Your task to perform on an android device: install app "Google Drive" Image 0: 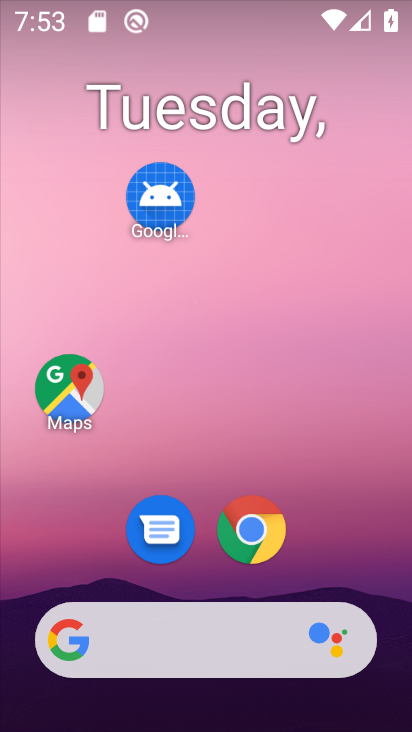
Step 0: press home button
Your task to perform on an android device: install app "Google Drive" Image 1: 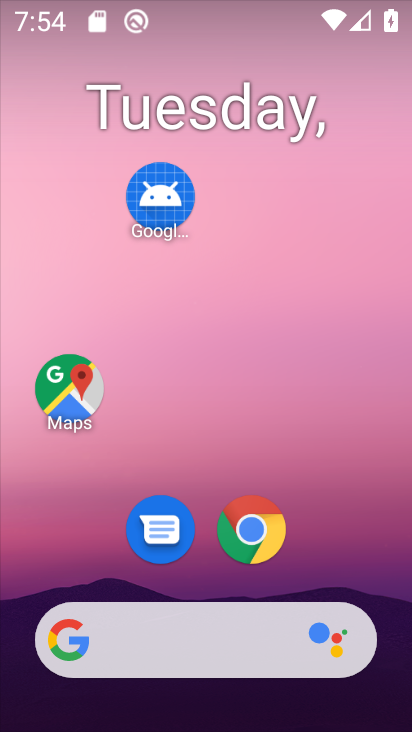
Step 1: drag from (319, 560) to (381, 46)
Your task to perform on an android device: install app "Google Drive" Image 2: 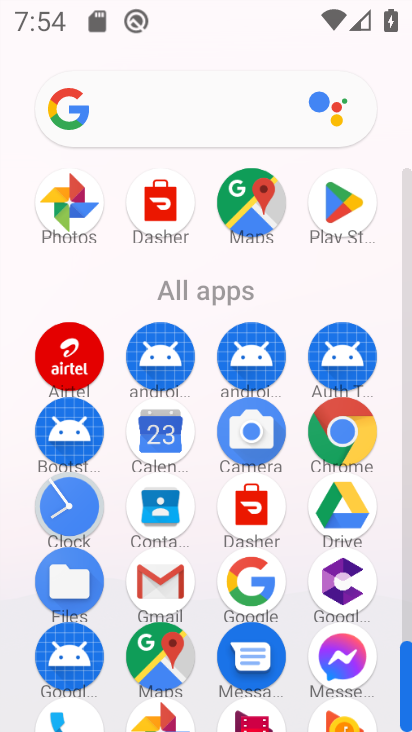
Step 2: click (340, 194)
Your task to perform on an android device: install app "Google Drive" Image 3: 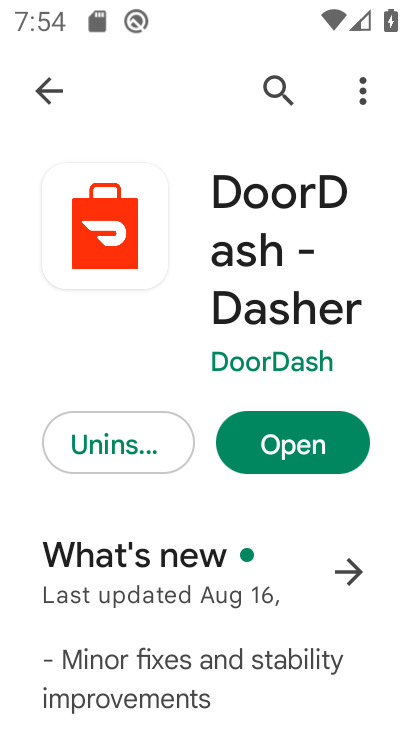
Step 3: click (275, 99)
Your task to perform on an android device: install app "Google Drive" Image 4: 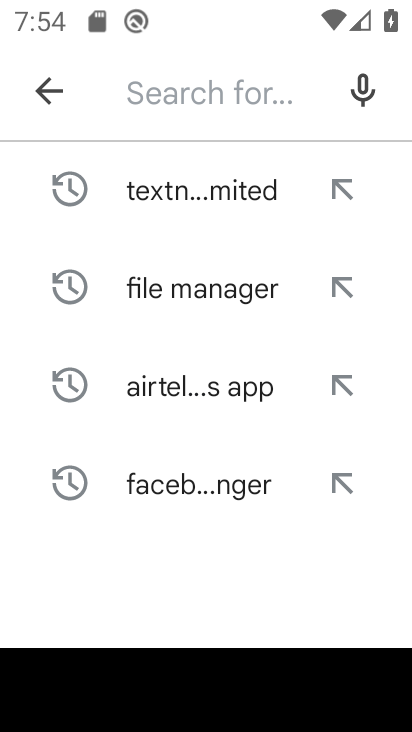
Step 4: type "Google Drive"
Your task to perform on an android device: install app "Google Drive" Image 5: 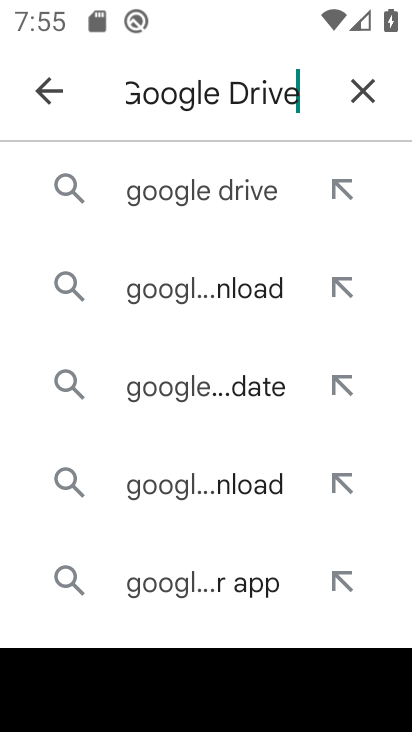
Step 5: click (209, 195)
Your task to perform on an android device: install app "Google Drive" Image 6: 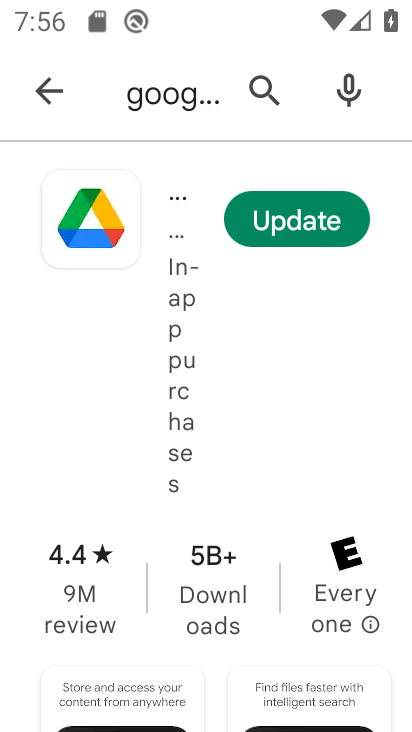
Step 6: click (334, 215)
Your task to perform on an android device: install app "Google Drive" Image 7: 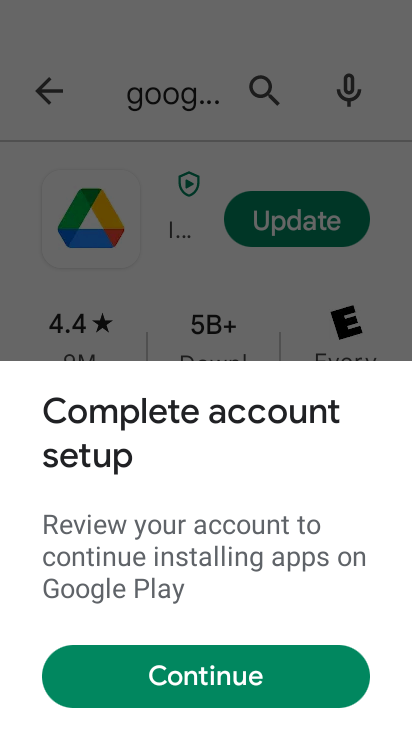
Step 7: click (208, 666)
Your task to perform on an android device: install app "Google Drive" Image 8: 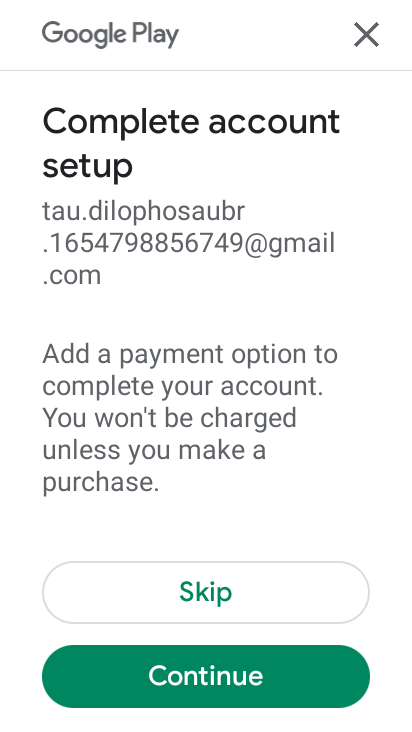
Step 8: click (197, 602)
Your task to perform on an android device: install app "Google Drive" Image 9: 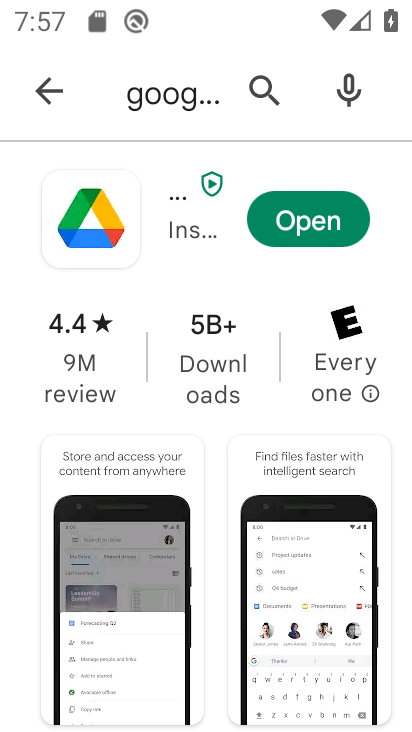
Step 9: click (308, 204)
Your task to perform on an android device: install app "Google Drive" Image 10: 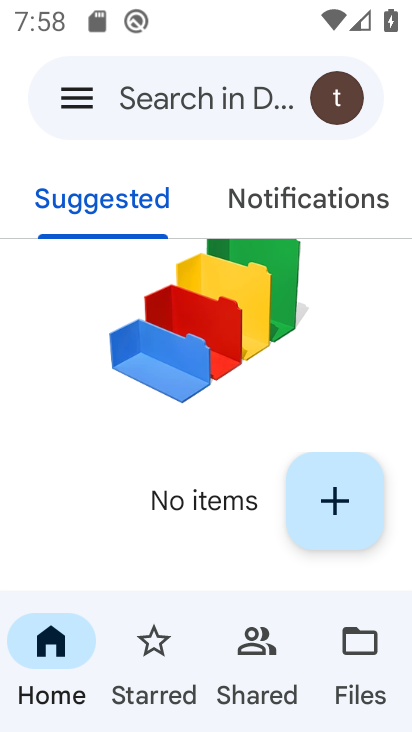
Step 10: task complete